Your task to perform on an android device: turn on sleep mode Image 0: 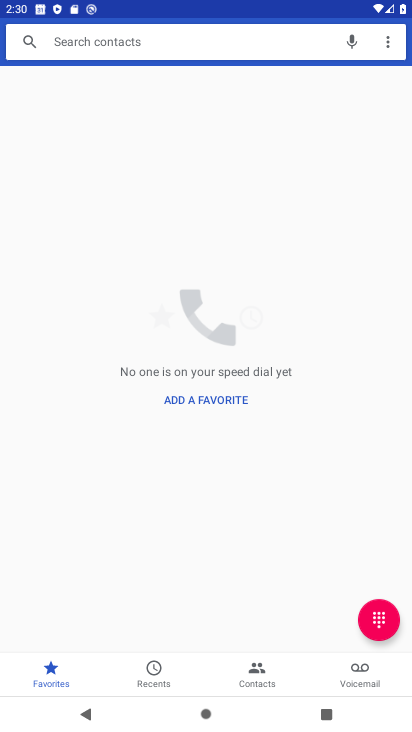
Step 0: press home button
Your task to perform on an android device: turn on sleep mode Image 1: 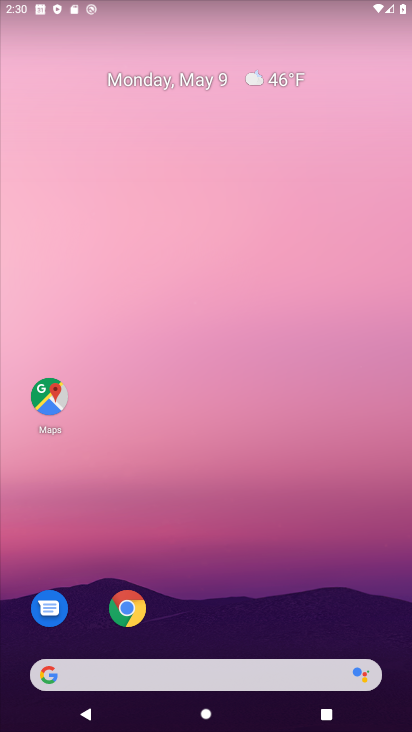
Step 1: drag from (200, 622) to (201, 222)
Your task to perform on an android device: turn on sleep mode Image 2: 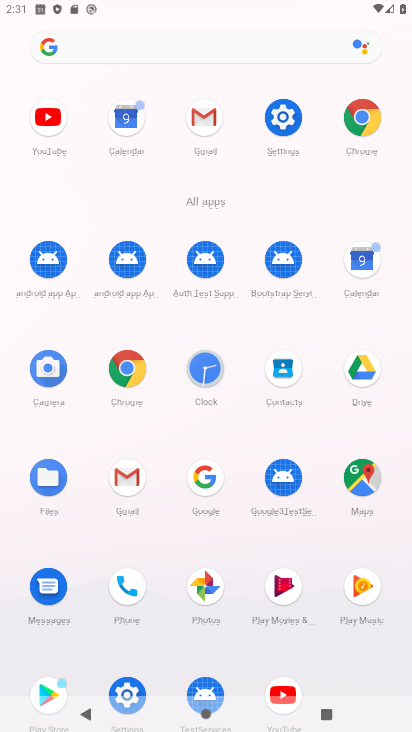
Step 2: click (131, 688)
Your task to perform on an android device: turn on sleep mode Image 3: 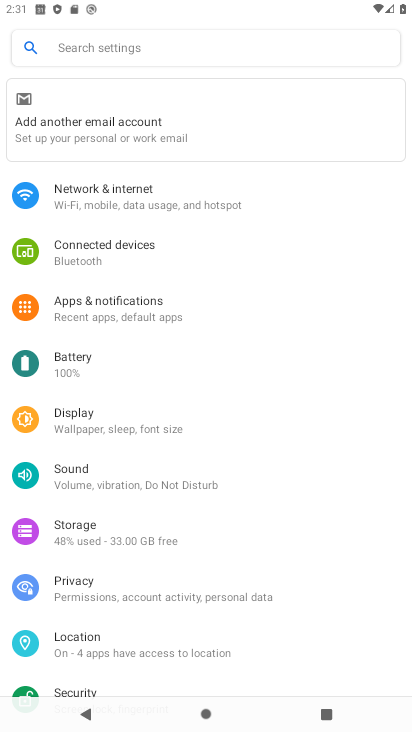
Step 3: click (181, 424)
Your task to perform on an android device: turn on sleep mode Image 4: 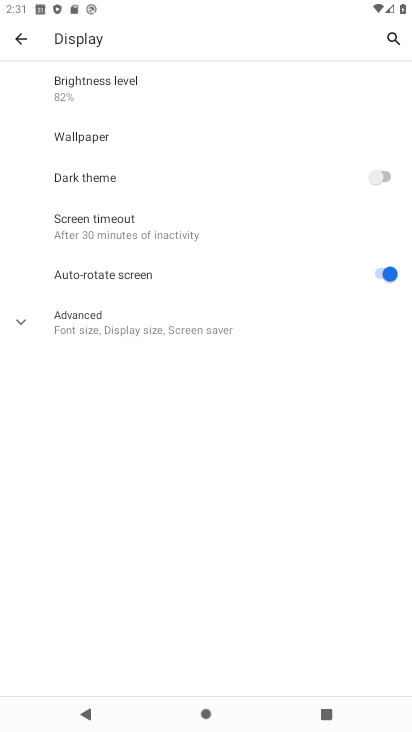
Step 4: task complete